Your task to perform on an android device: turn off notifications in google photos Image 0: 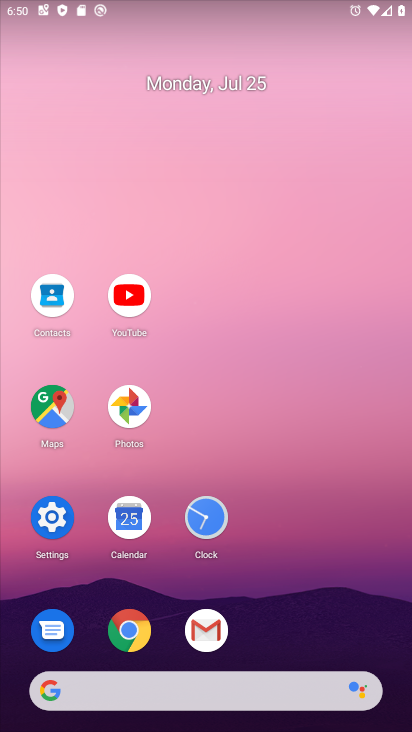
Step 0: click (128, 412)
Your task to perform on an android device: turn off notifications in google photos Image 1: 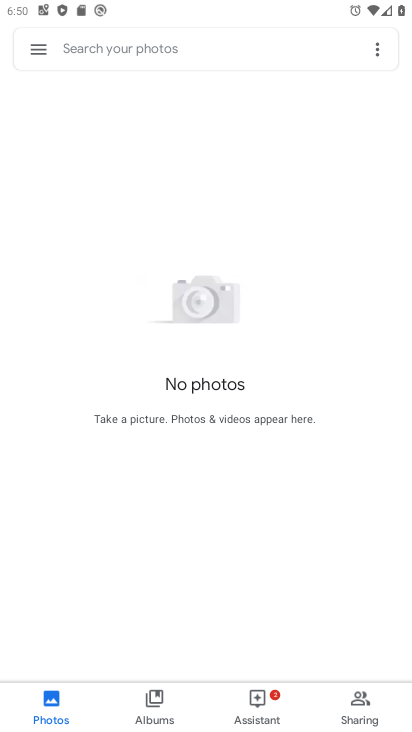
Step 1: click (36, 42)
Your task to perform on an android device: turn off notifications in google photos Image 2: 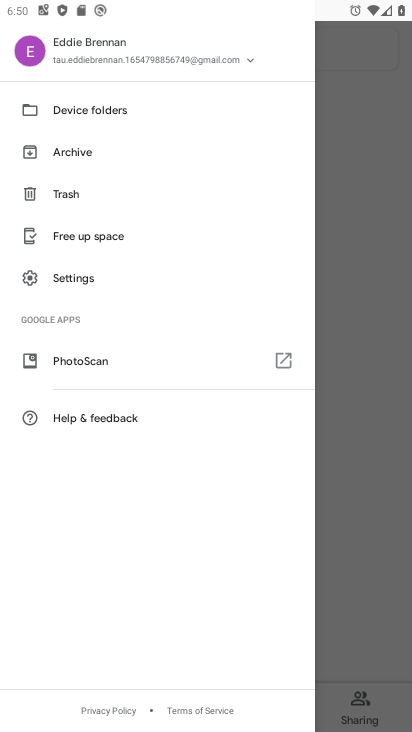
Step 2: click (65, 276)
Your task to perform on an android device: turn off notifications in google photos Image 3: 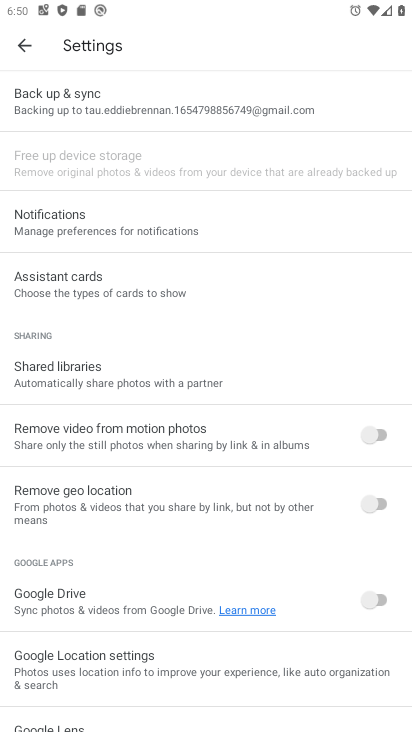
Step 3: click (56, 211)
Your task to perform on an android device: turn off notifications in google photos Image 4: 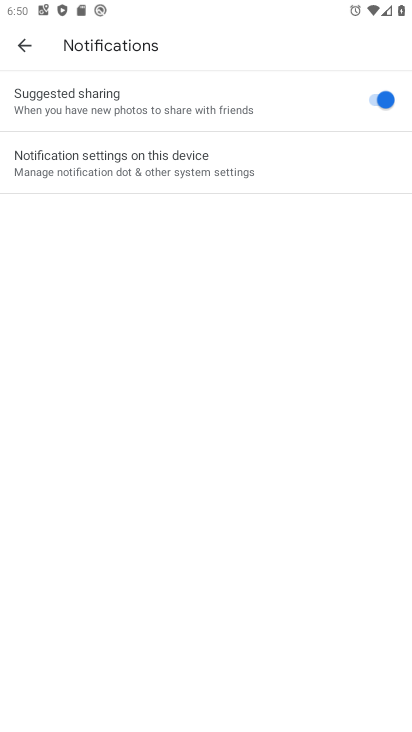
Step 4: click (167, 151)
Your task to perform on an android device: turn off notifications in google photos Image 5: 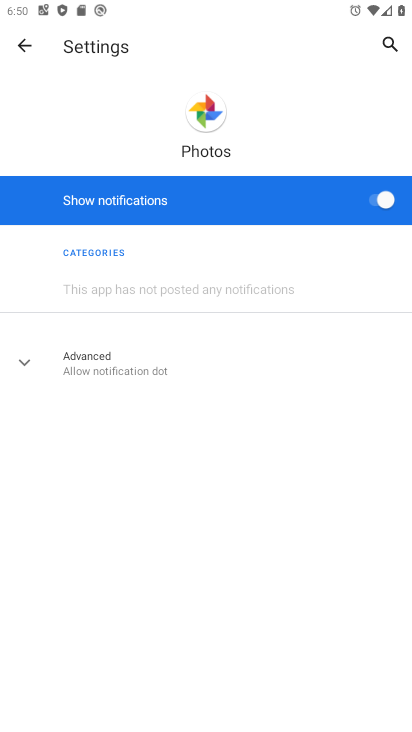
Step 5: click (377, 195)
Your task to perform on an android device: turn off notifications in google photos Image 6: 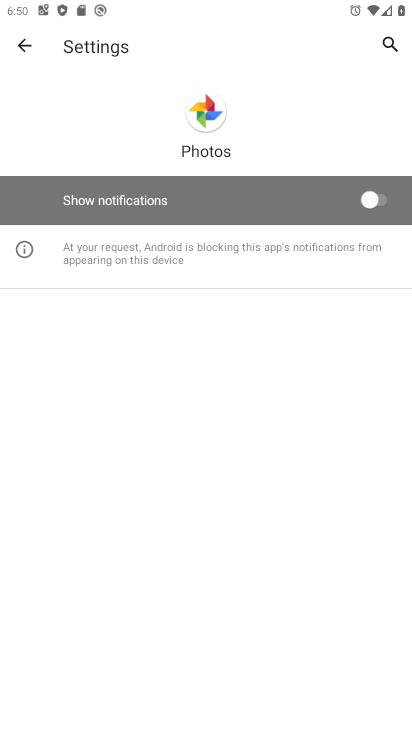
Step 6: task complete